Your task to perform on an android device: Open the map Image 0: 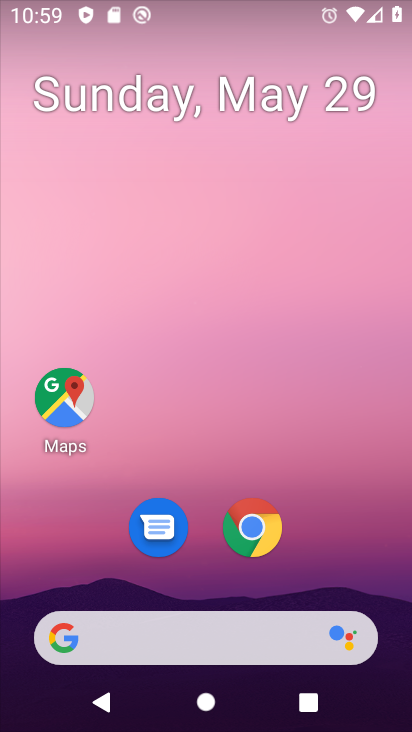
Step 0: click (60, 389)
Your task to perform on an android device: Open the map Image 1: 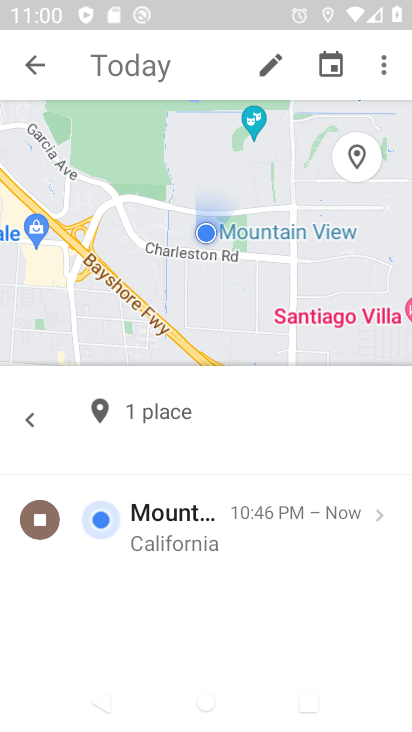
Step 1: task complete